Your task to perform on an android device: Add "razer blade" to the cart on bestbuy.com Image 0: 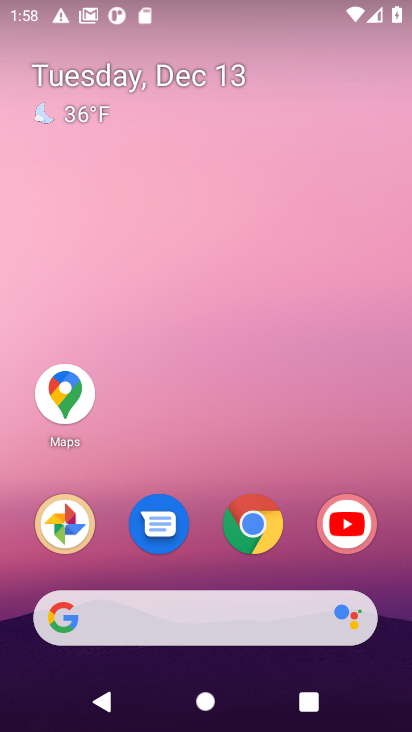
Step 0: click (243, 537)
Your task to perform on an android device: Add "razer blade" to the cart on bestbuy.com Image 1: 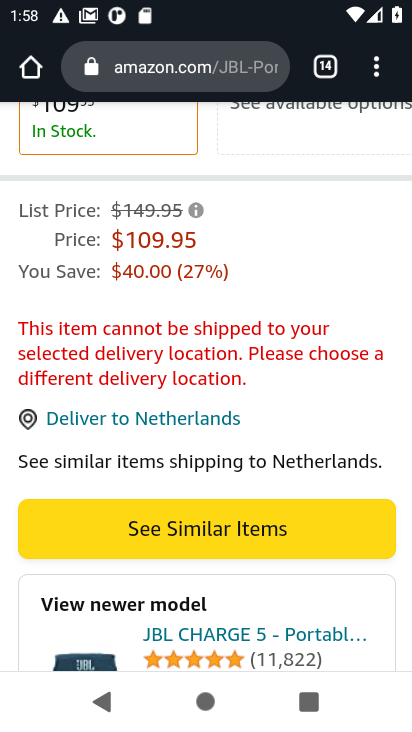
Step 1: click (139, 68)
Your task to perform on an android device: Add "razer blade" to the cart on bestbuy.com Image 2: 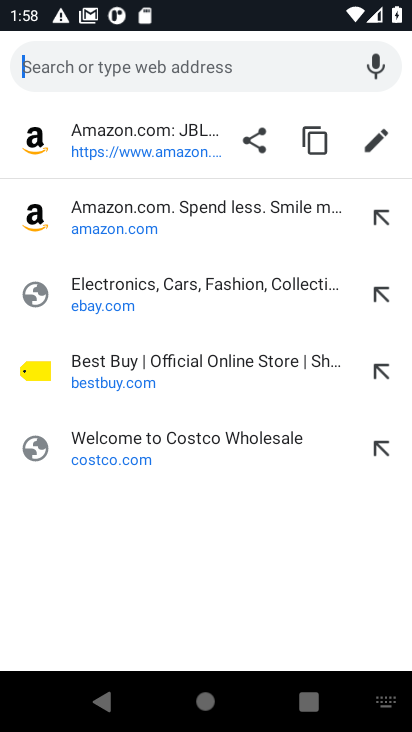
Step 2: click (99, 374)
Your task to perform on an android device: Add "razer blade" to the cart on bestbuy.com Image 3: 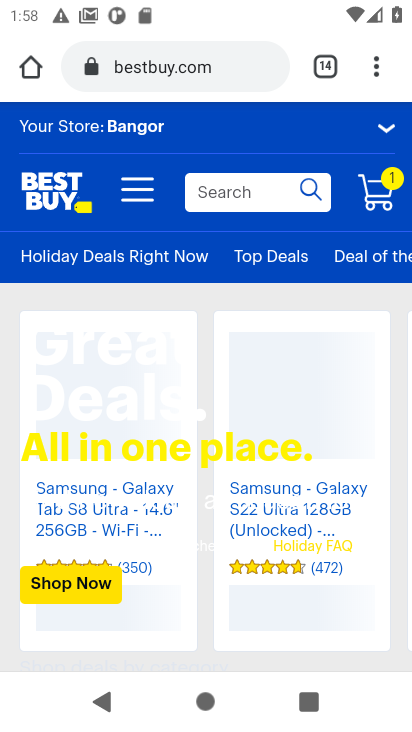
Step 3: click (235, 188)
Your task to perform on an android device: Add "razer blade" to the cart on bestbuy.com Image 4: 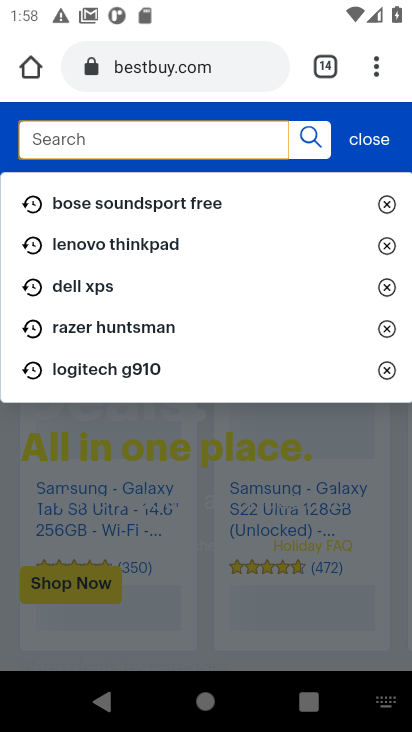
Step 4: type "razer blade"
Your task to perform on an android device: Add "razer blade" to the cart on bestbuy.com Image 5: 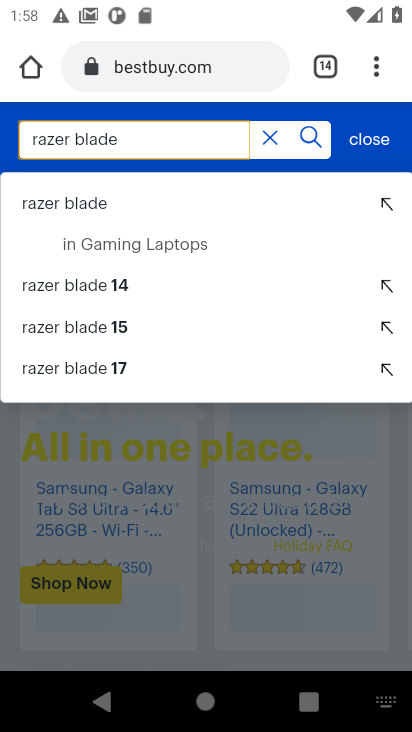
Step 5: click (64, 214)
Your task to perform on an android device: Add "razer blade" to the cart on bestbuy.com Image 6: 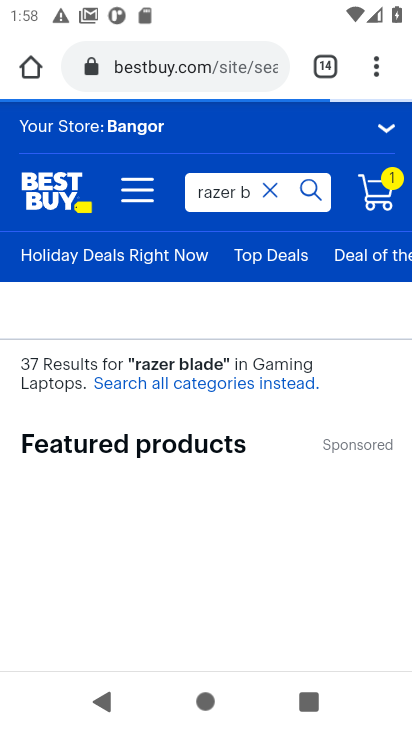
Step 6: drag from (197, 512) to (172, 256)
Your task to perform on an android device: Add "razer blade" to the cart on bestbuy.com Image 7: 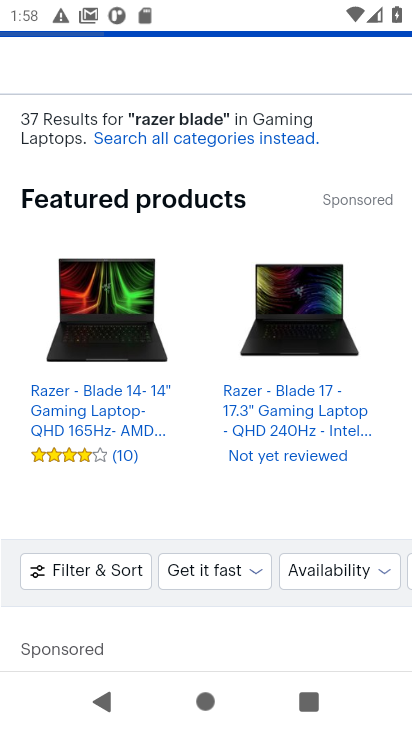
Step 7: drag from (167, 523) to (140, 183)
Your task to perform on an android device: Add "razer blade" to the cart on bestbuy.com Image 8: 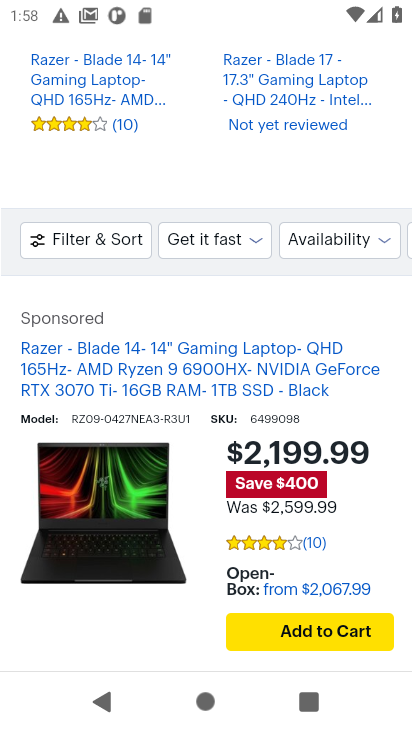
Step 8: click (284, 627)
Your task to perform on an android device: Add "razer blade" to the cart on bestbuy.com Image 9: 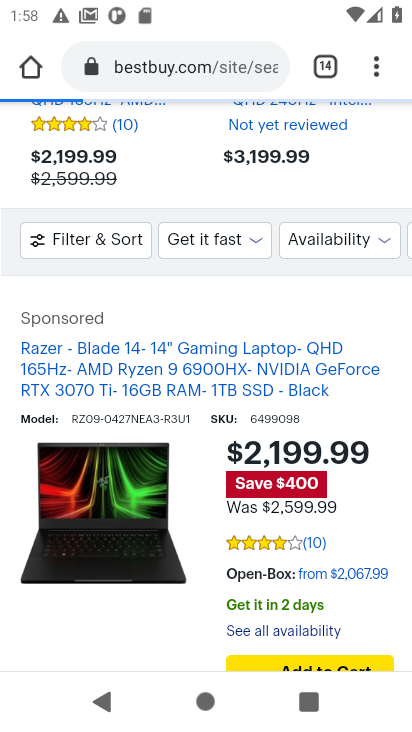
Step 9: click (284, 661)
Your task to perform on an android device: Add "razer blade" to the cart on bestbuy.com Image 10: 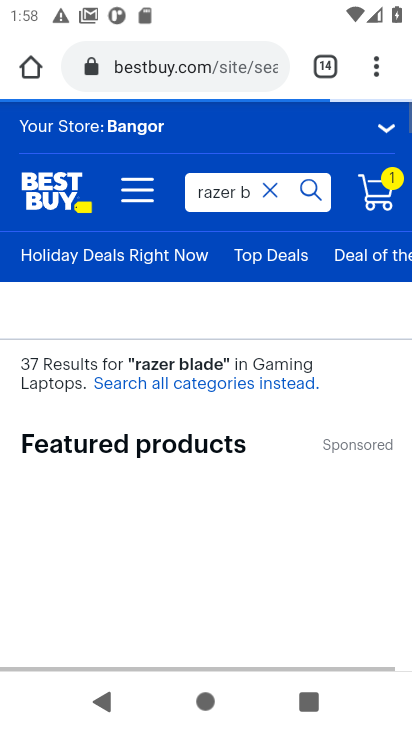
Step 10: drag from (127, 452) to (148, 148)
Your task to perform on an android device: Add "razer blade" to the cart on bestbuy.com Image 11: 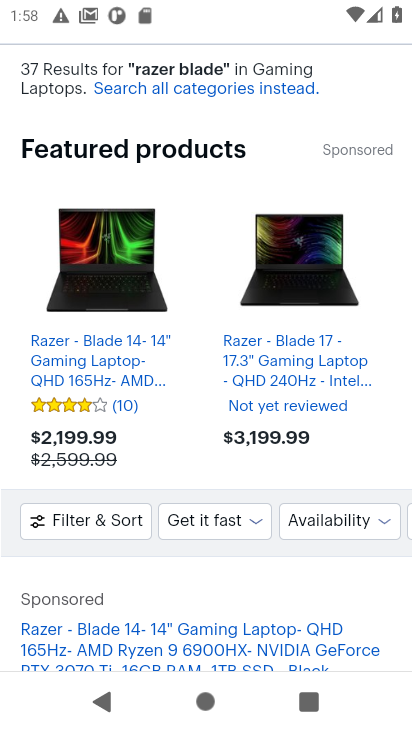
Step 11: drag from (159, 504) to (170, 166)
Your task to perform on an android device: Add "razer blade" to the cart on bestbuy.com Image 12: 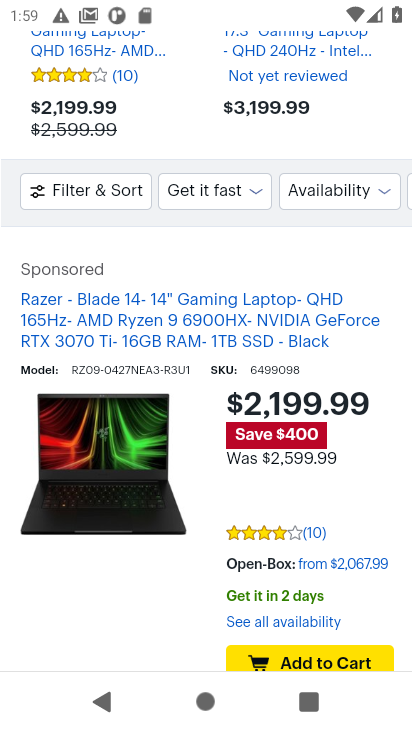
Step 12: drag from (282, 502) to (281, 284)
Your task to perform on an android device: Add "razer blade" to the cart on bestbuy.com Image 13: 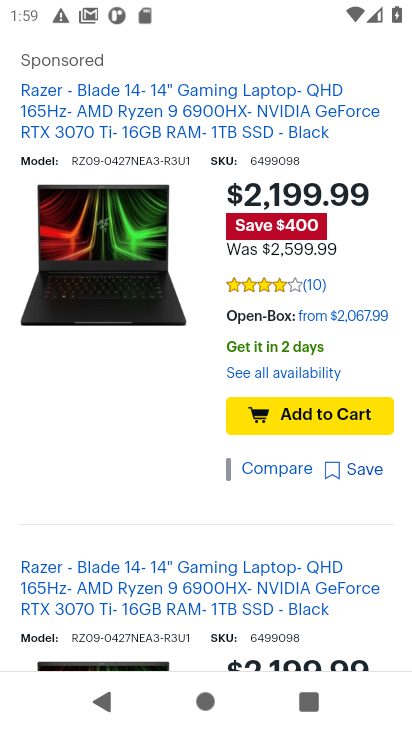
Step 13: click (306, 418)
Your task to perform on an android device: Add "razer blade" to the cart on bestbuy.com Image 14: 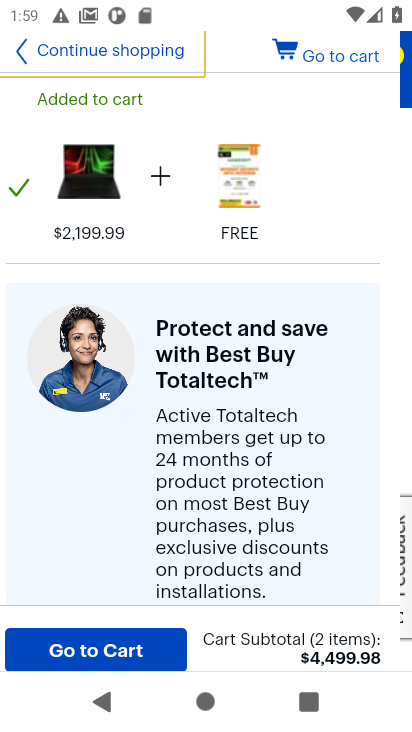
Step 14: task complete